Your task to perform on an android device: Is it going to rain this weekend? Image 0: 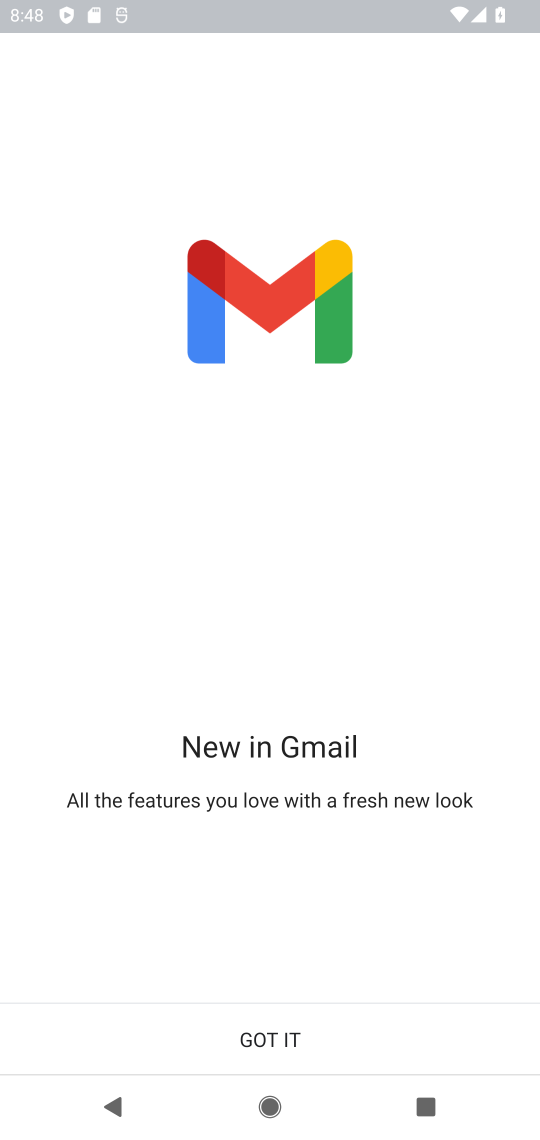
Step 0: drag from (242, 886) to (234, 324)
Your task to perform on an android device: Is it going to rain this weekend? Image 1: 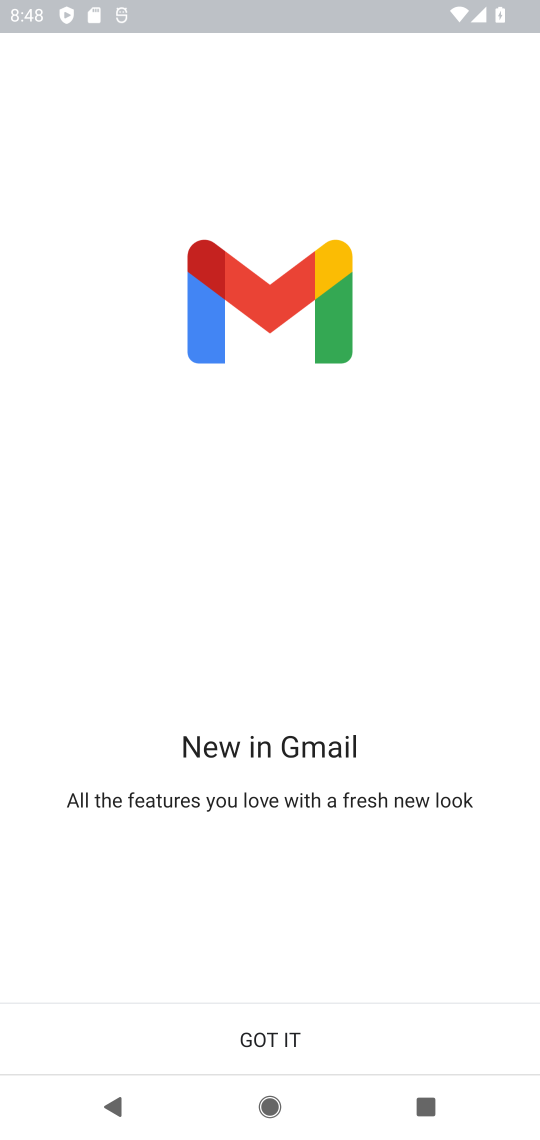
Step 1: drag from (222, 983) to (216, 89)
Your task to perform on an android device: Is it going to rain this weekend? Image 2: 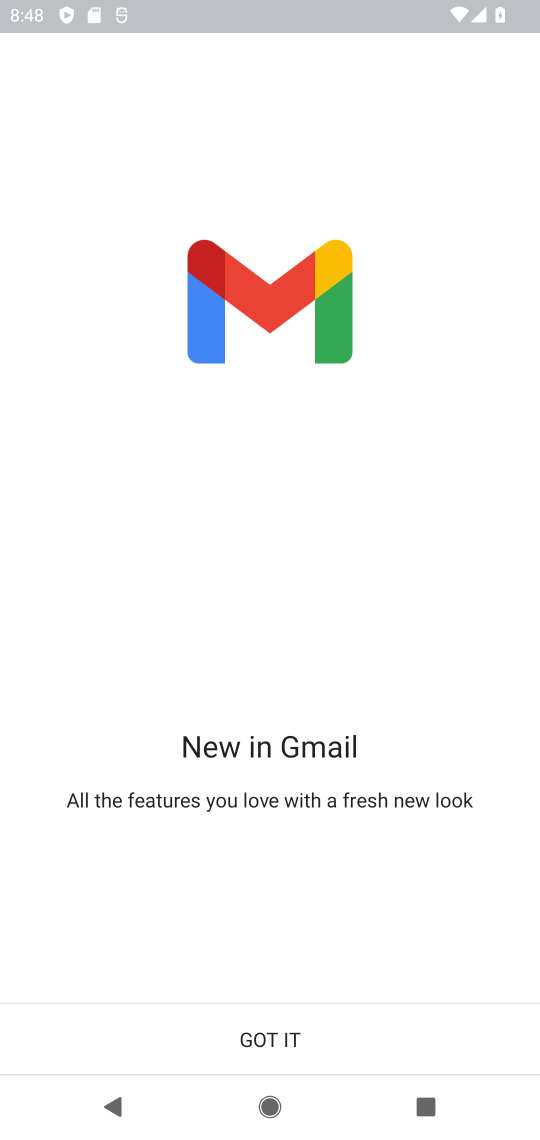
Step 2: press home button
Your task to perform on an android device: Is it going to rain this weekend? Image 3: 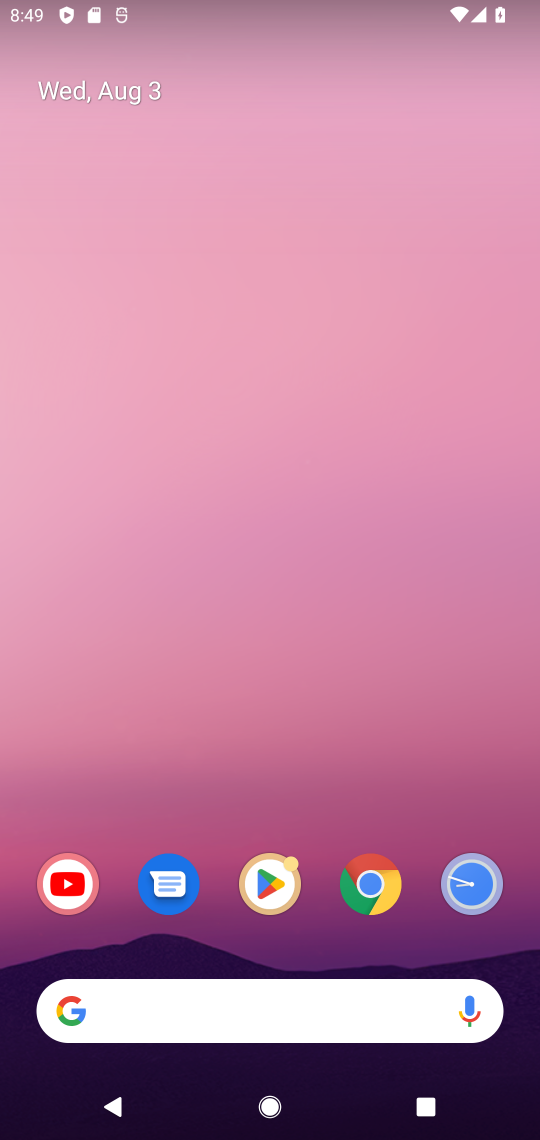
Step 3: click (232, 1005)
Your task to perform on an android device: Is it going to rain this weekend? Image 4: 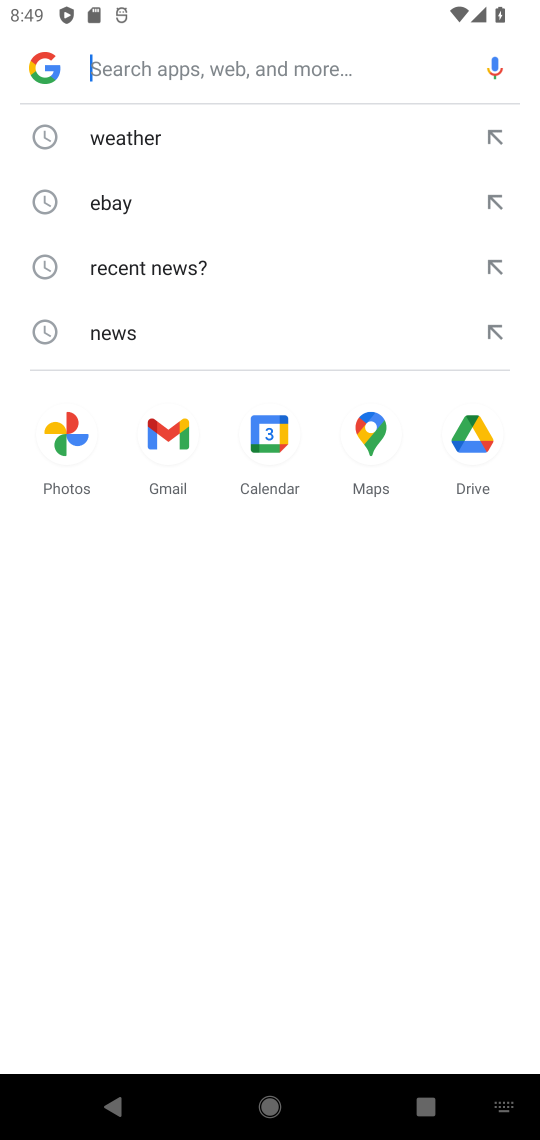
Step 4: type "Is it going to rain this weekend?"
Your task to perform on an android device: Is it going to rain this weekend? Image 5: 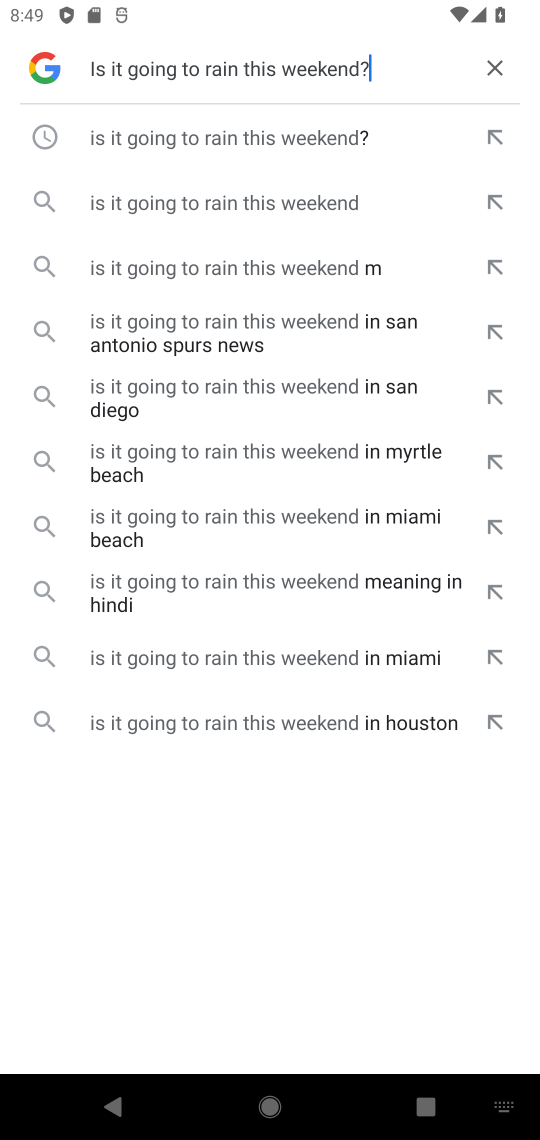
Step 5: type ""
Your task to perform on an android device: Is it going to rain this weekend? Image 6: 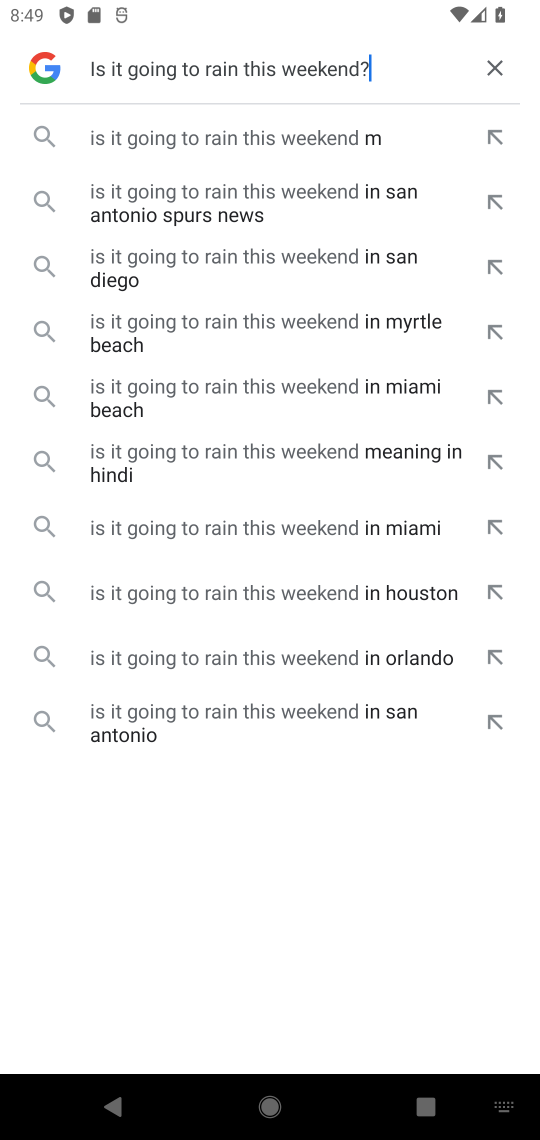
Step 6: click (218, 130)
Your task to perform on an android device: Is it going to rain this weekend? Image 7: 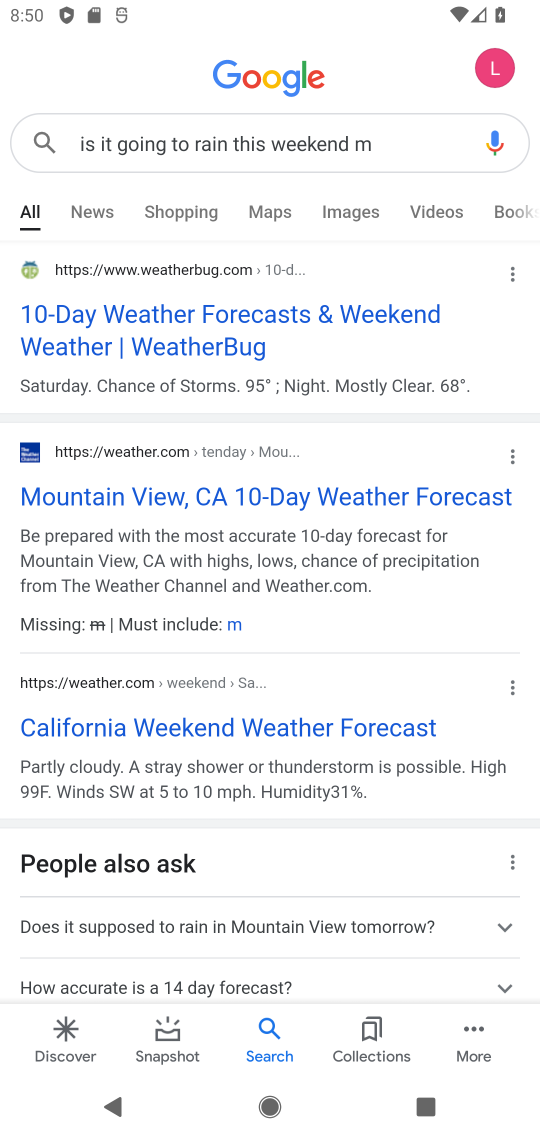
Step 7: task complete